Your task to perform on an android device: What's the weather going to be tomorrow? Image 0: 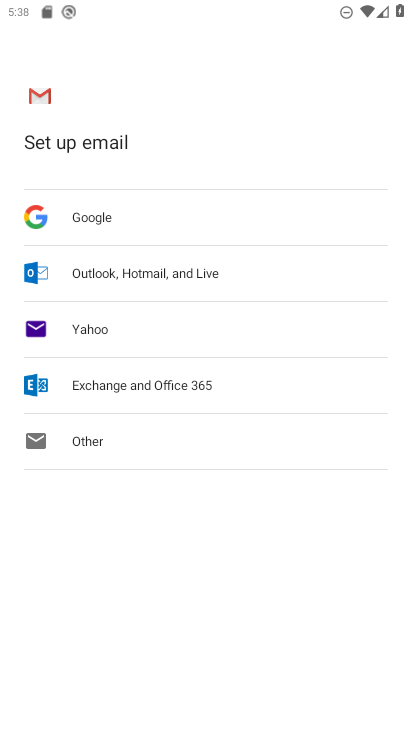
Step 0: press home button
Your task to perform on an android device: What's the weather going to be tomorrow? Image 1: 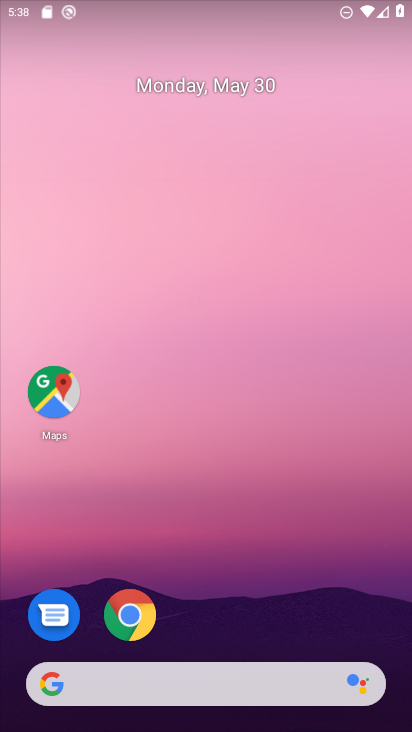
Step 1: click (211, 681)
Your task to perform on an android device: What's the weather going to be tomorrow? Image 2: 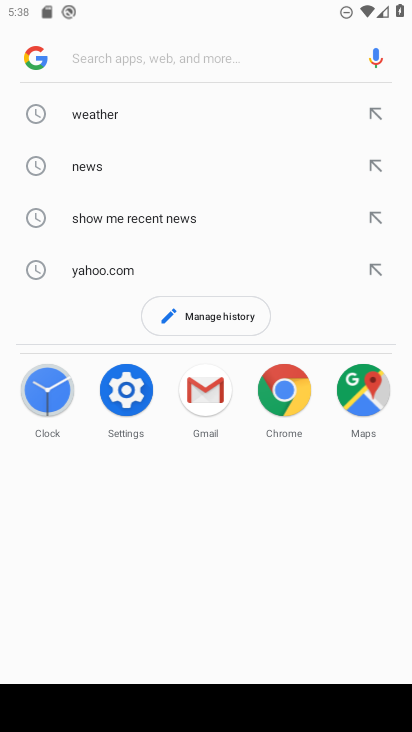
Step 2: click (150, 108)
Your task to perform on an android device: What's the weather going to be tomorrow? Image 3: 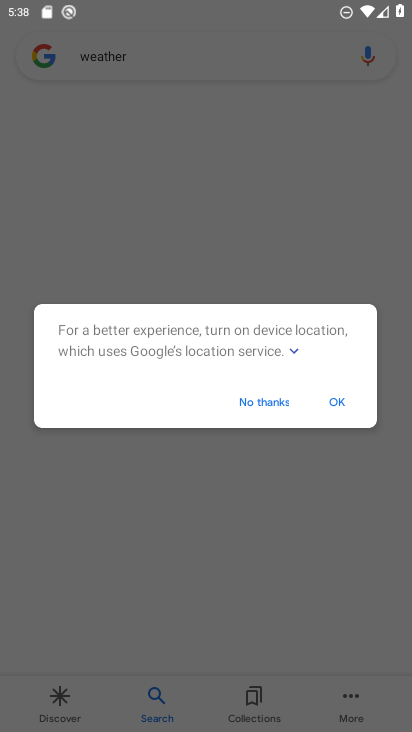
Step 3: click (339, 396)
Your task to perform on an android device: What's the weather going to be tomorrow? Image 4: 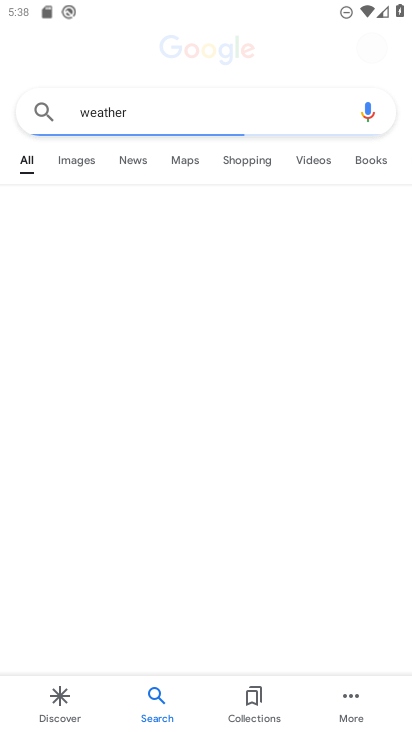
Step 4: task complete